Your task to perform on an android device: find photos in the google photos app Image 0: 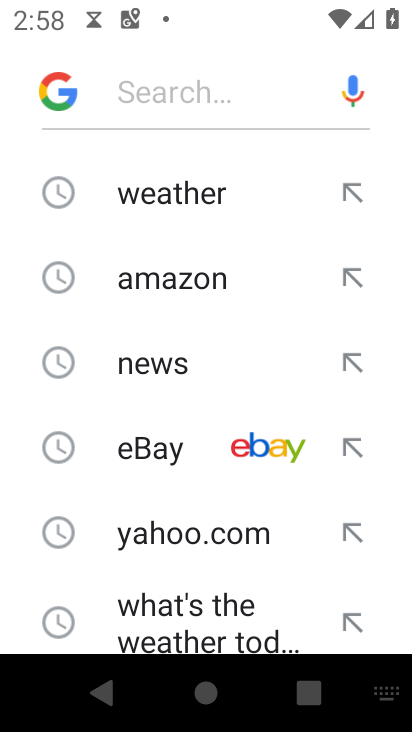
Step 0: press home button
Your task to perform on an android device: find photos in the google photos app Image 1: 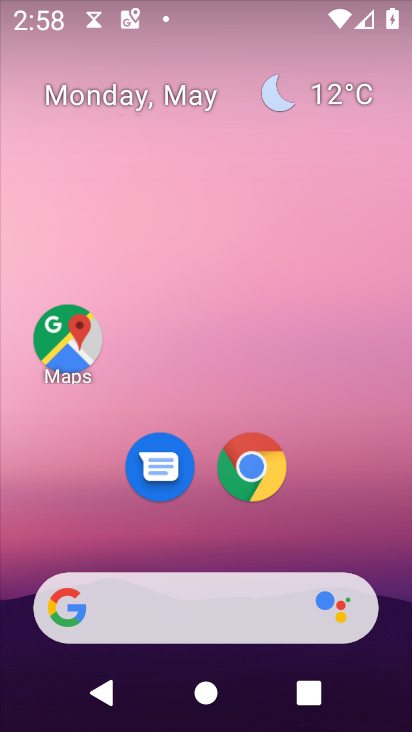
Step 1: drag from (351, 520) to (202, 91)
Your task to perform on an android device: find photos in the google photos app Image 2: 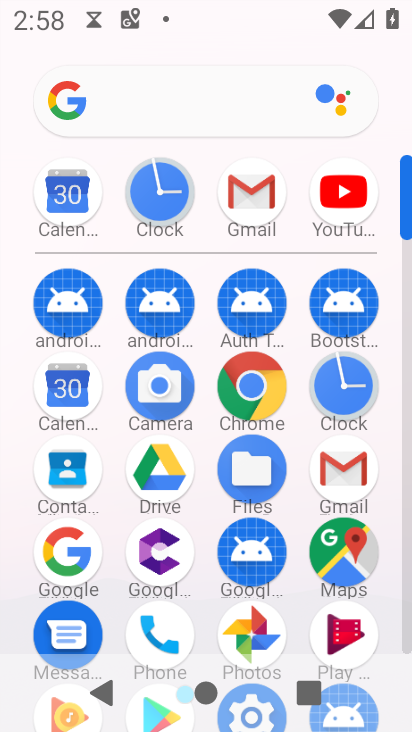
Step 2: click (256, 632)
Your task to perform on an android device: find photos in the google photos app Image 3: 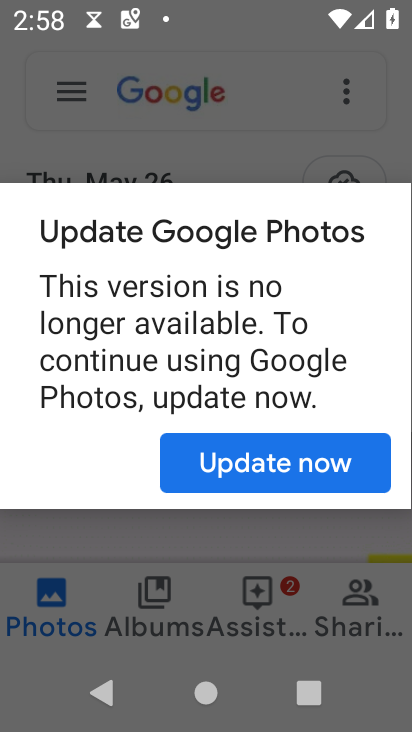
Step 3: click (358, 457)
Your task to perform on an android device: find photos in the google photos app Image 4: 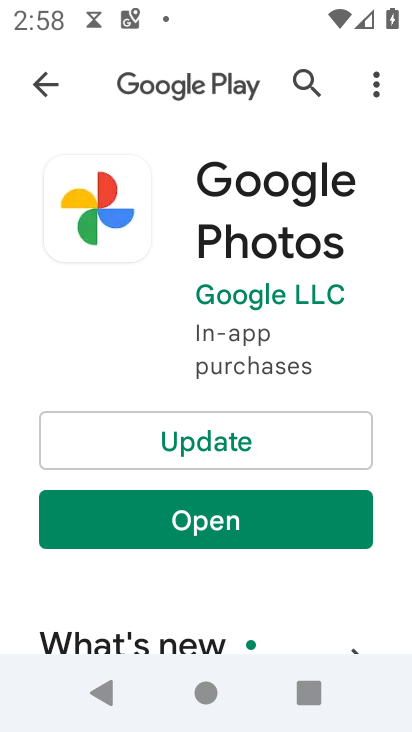
Step 4: click (223, 455)
Your task to perform on an android device: find photos in the google photos app Image 5: 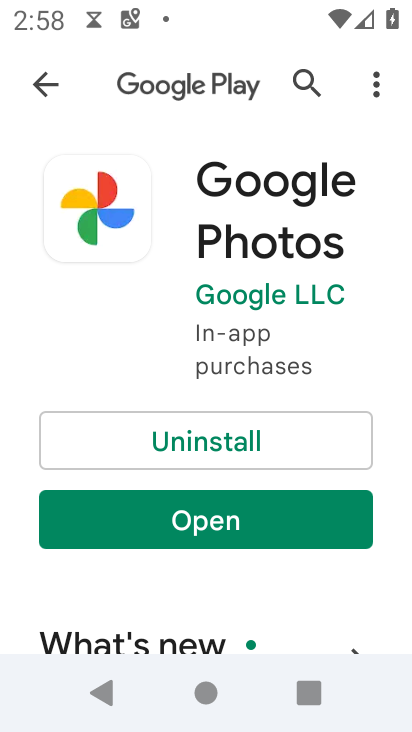
Step 5: click (298, 536)
Your task to perform on an android device: find photos in the google photos app Image 6: 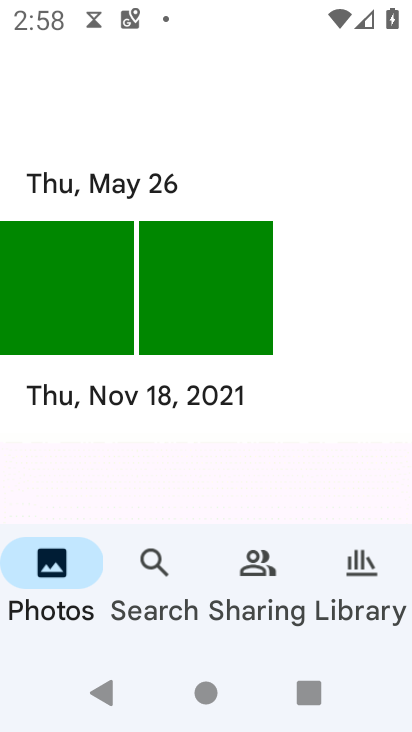
Step 6: task complete